Your task to perform on an android device: turn on translation in the chrome app Image 0: 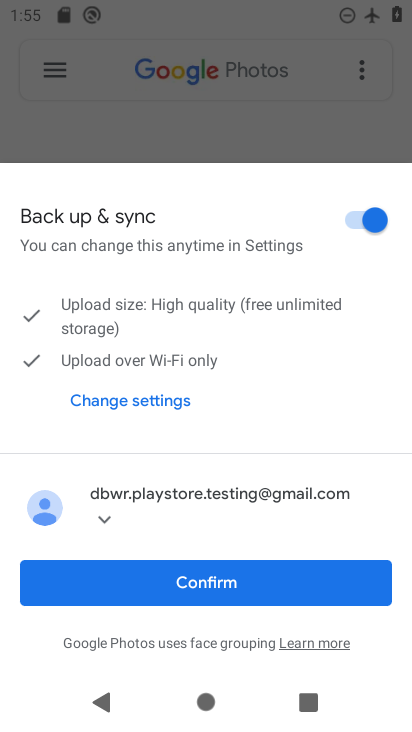
Step 0: press home button
Your task to perform on an android device: turn on translation in the chrome app Image 1: 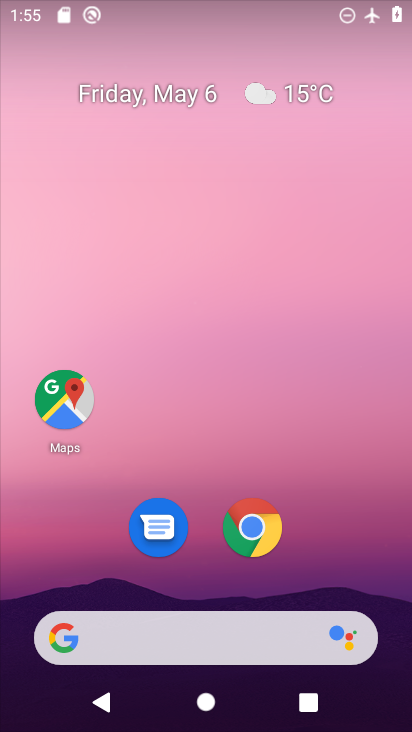
Step 1: click (248, 533)
Your task to perform on an android device: turn on translation in the chrome app Image 2: 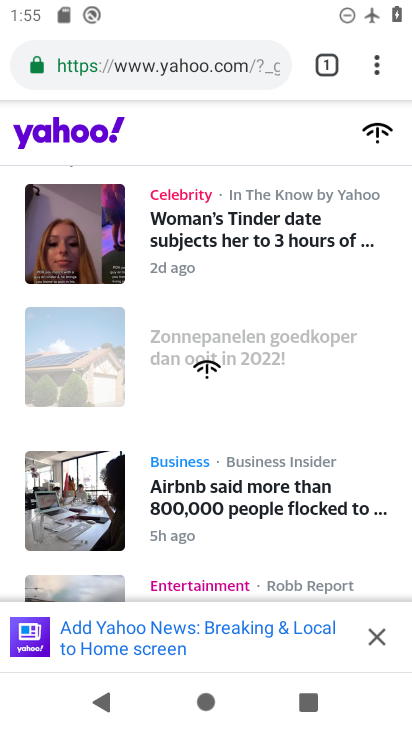
Step 2: drag from (376, 66) to (127, 580)
Your task to perform on an android device: turn on translation in the chrome app Image 3: 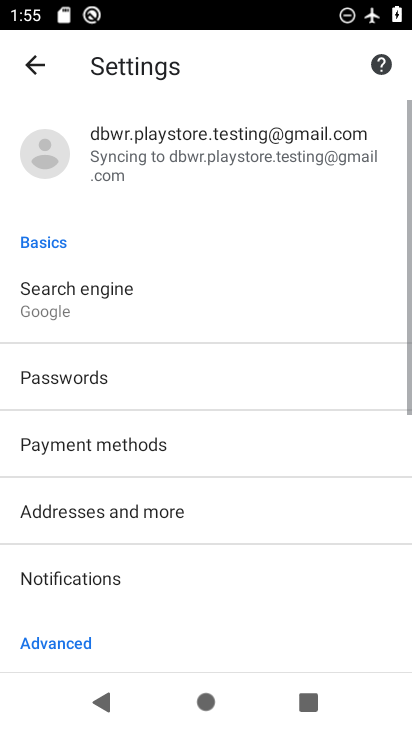
Step 3: drag from (127, 580) to (144, 214)
Your task to perform on an android device: turn on translation in the chrome app Image 4: 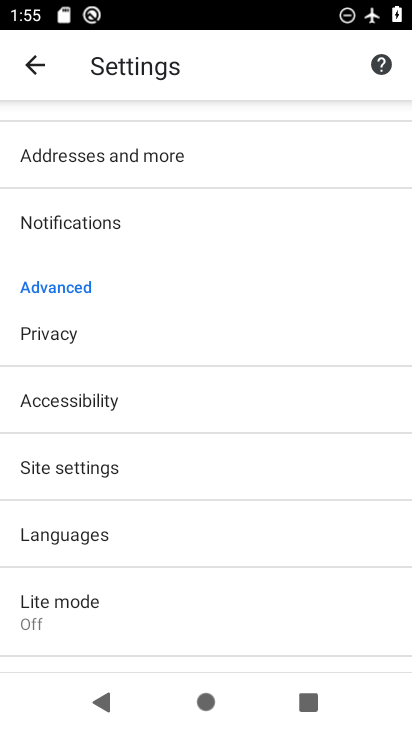
Step 4: click (38, 539)
Your task to perform on an android device: turn on translation in the chrome app Image 5: 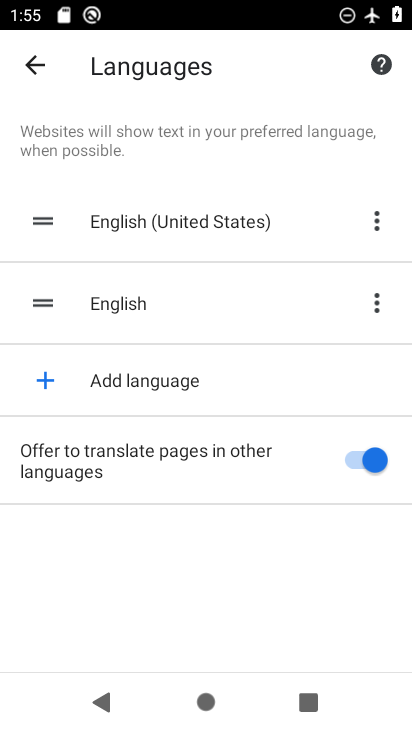
Step 5: task complete